Your task to perform on an android device: turn off location Image 0: 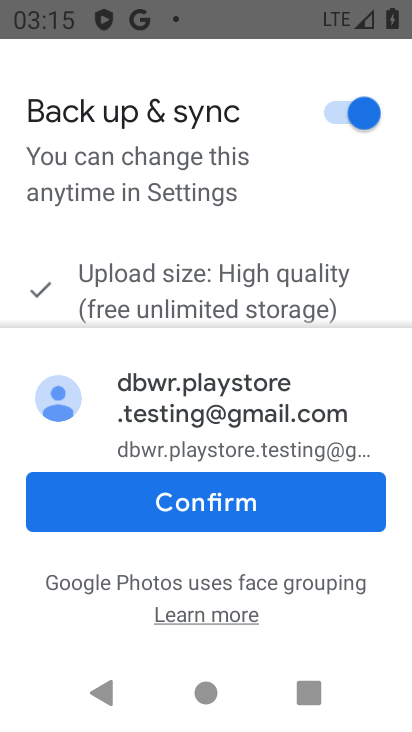
Step 0: press back button
Your task to perform on an android device: turn off location Image 1: 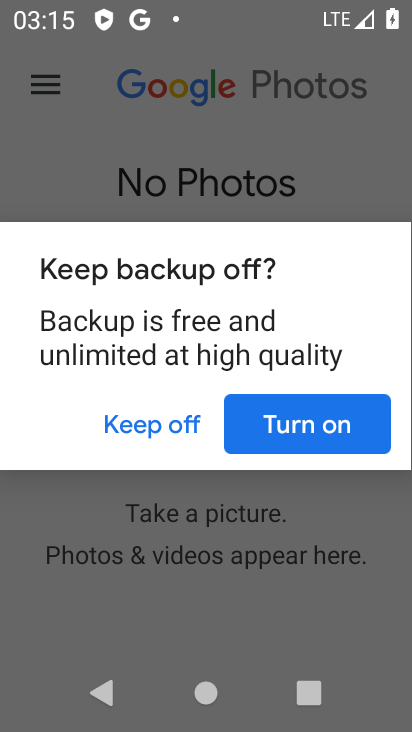
Step 1: press home button
Your task to perform on an android device: turn off location Image 2: 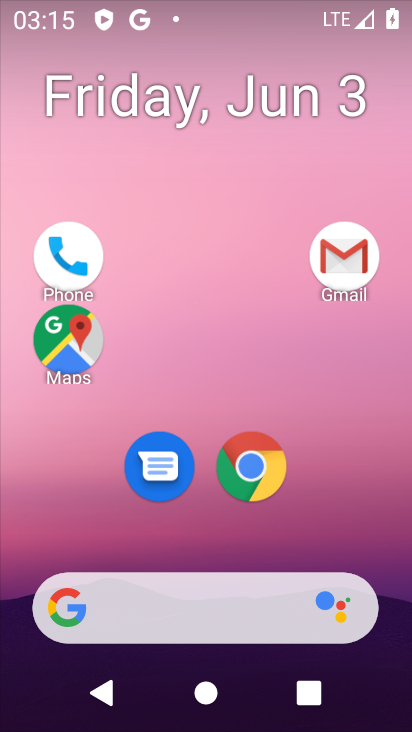
Step 2: drag from (218, 560) to (227, 291)
Your task to perform on an android device: turn off location Image 3: 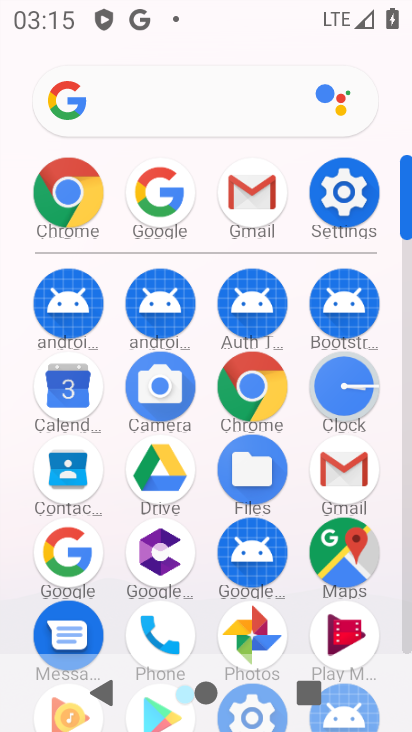
Step 3: click (319, 564)
Your task to perform on an android device: turn off location Image 4: 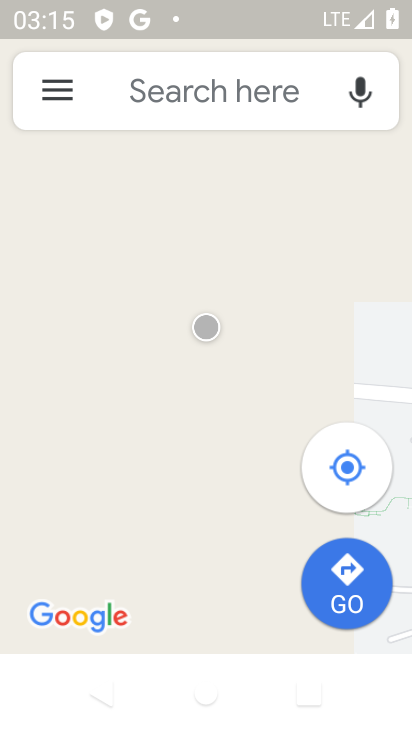
Step 4: press home button
Your task to perform on an android device: turn off location Image 5: 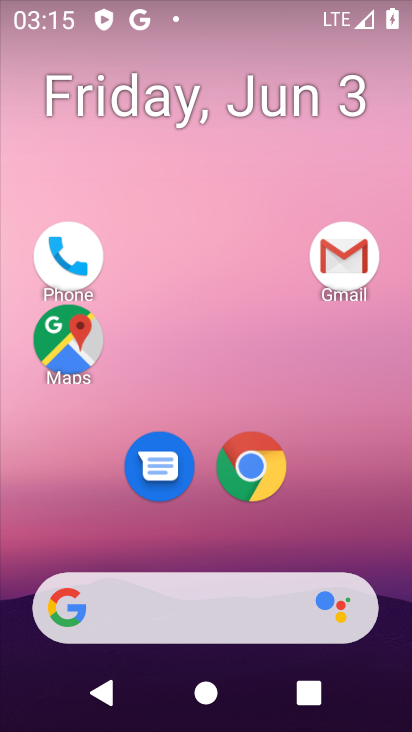
Step 5: click (195, 202)
Your task to perform on an android device: turn off location Image 6: 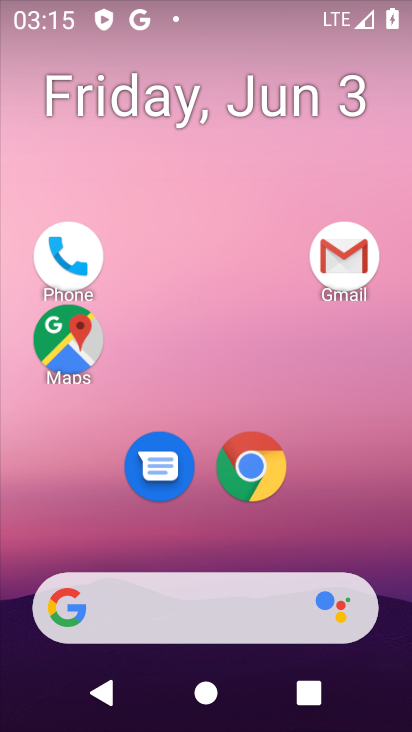
Step 6: drag from (208, 533) to (197, 96)
Your task to perform on an android device: turn off location Image 7: 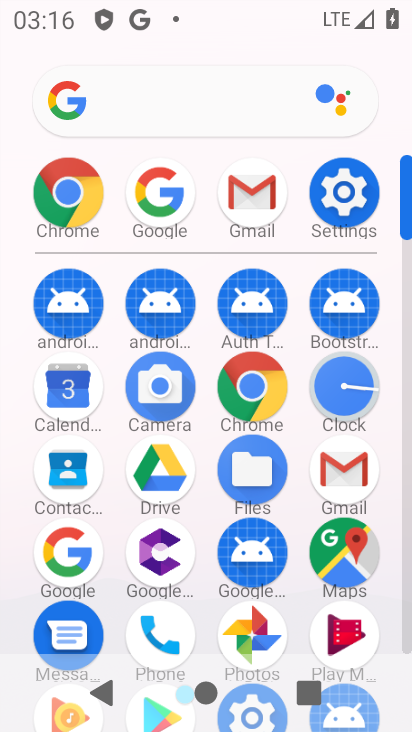
Step 7: click (334, 199)
Your task to perform on an android device: turn off location Image 8: 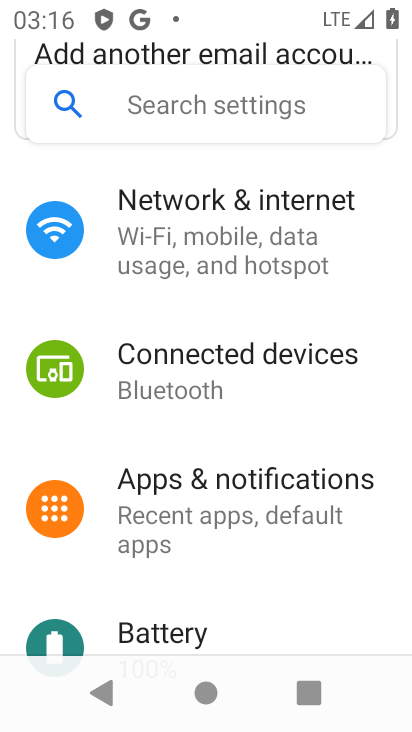
Step 8: drag from (199, 571) to (135, 185)
Your task to perform on an android device: turn off location Image 9: 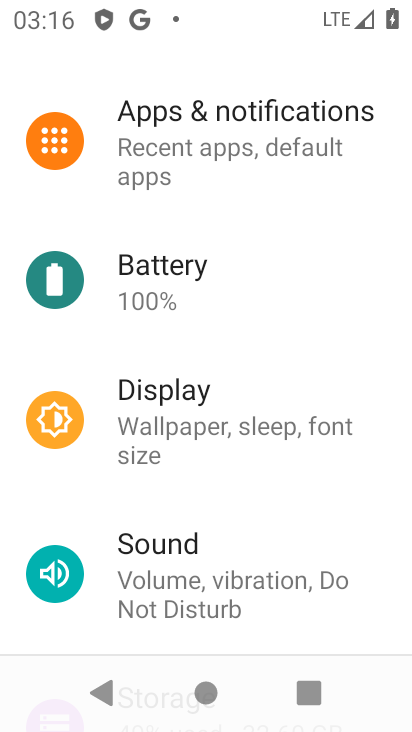
Step 9: drag from (215, 528) to (208, 325)
Your task to perform on an android device: turn off location Image 10: 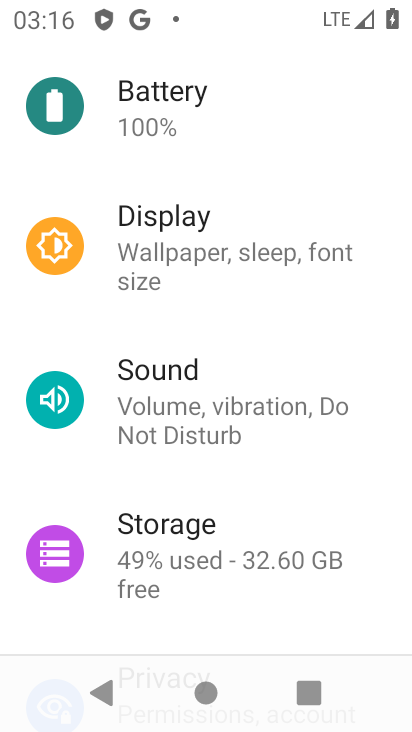
Step 10: drag from (209, 565) to (198, 354)
Your task to perform on an android device: turn off location Image 11: 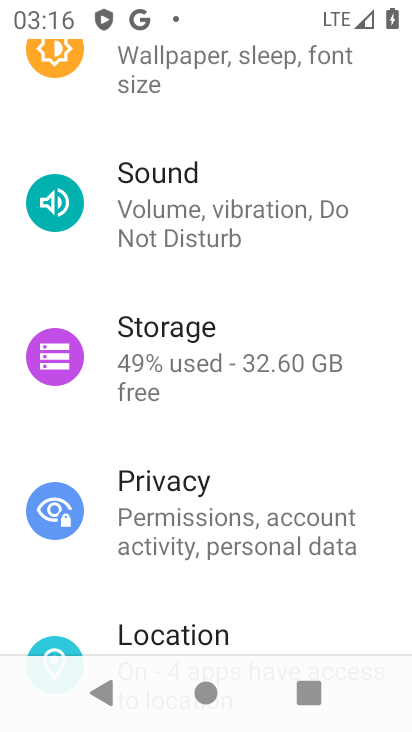
Step 11: click (165, 635)
Your task to perform on an android device: turn off location Image 12: 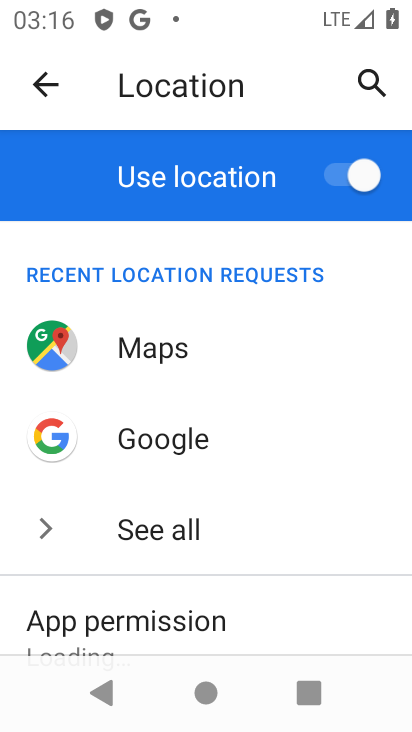
Step 12: drag from (165, 628) to (140, 455)
Your task to perform on an android device: turn off location Image 13: 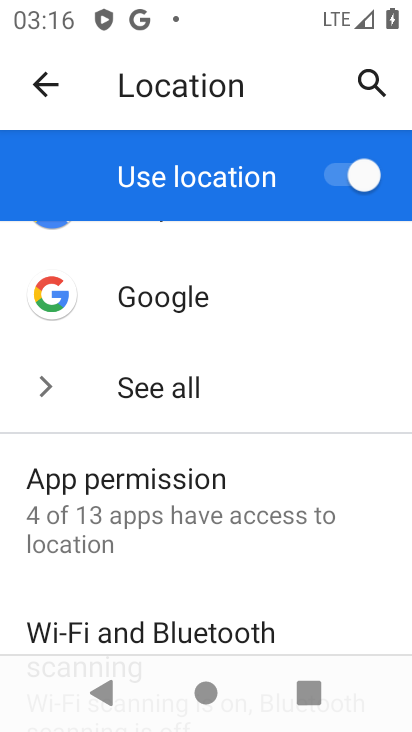
Step 13: click (326, 173)
Your task to perform on an android device: turn off location Image 14: 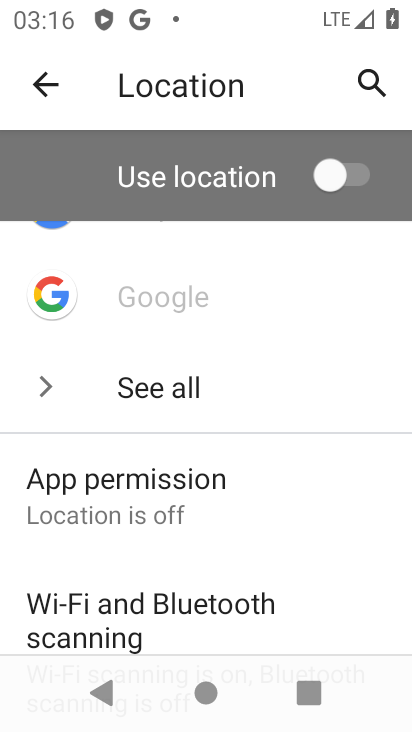
Step 14: task complete